Your task to perform on an android device: find photos in the google photos app Image 0: 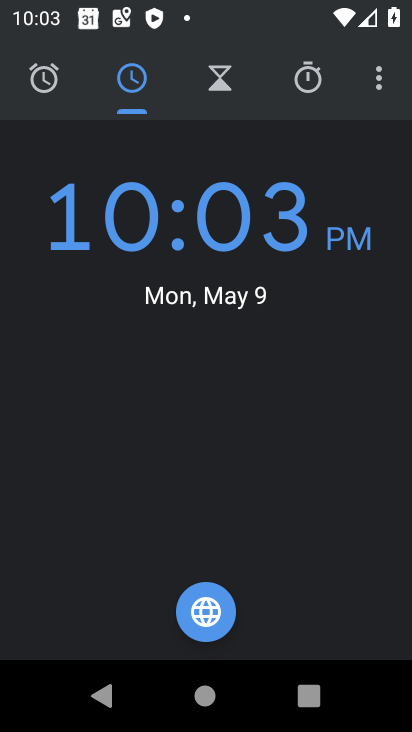
Step 0: press back button
Your task to perform on an android device: find photos in the google photos app Image 1: 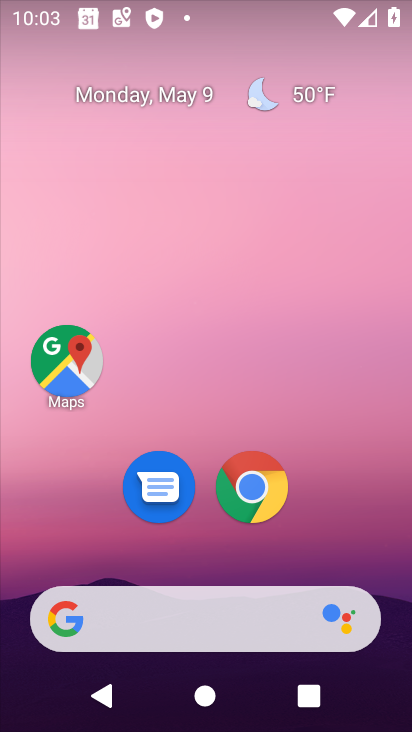
Step 1: drag from (18, 672) to (222, 222)
Your task to perform on an android device: find photos in the google photos app Image 2: 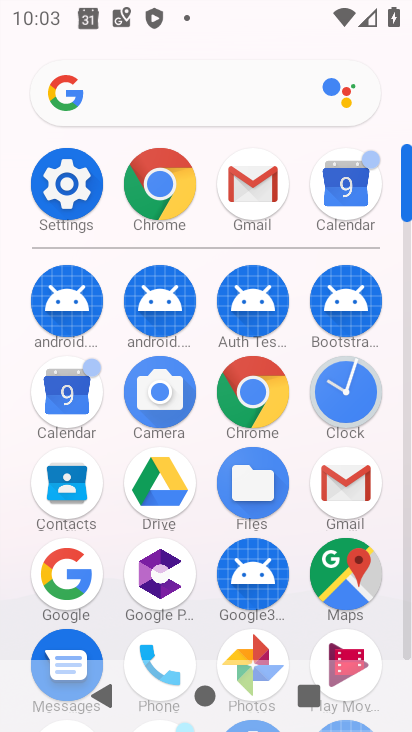
Step 2: click (248, 645)
Your task to perform on an android device: find photos in the google photos app Image 3: 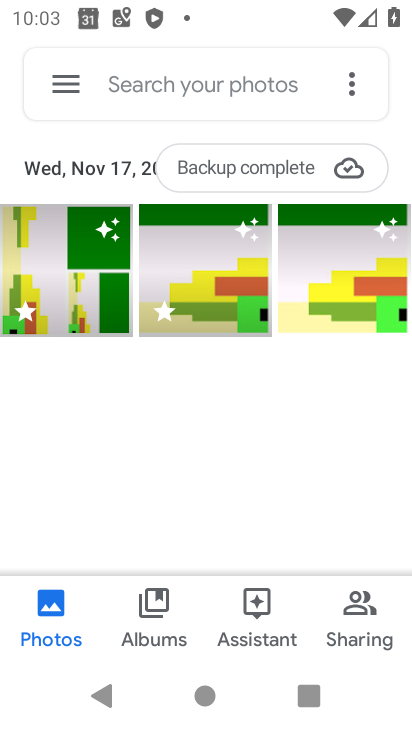
Step 3: click (49, 608)
Your task to perform on an android device: find photos in the google photos app Image 4: 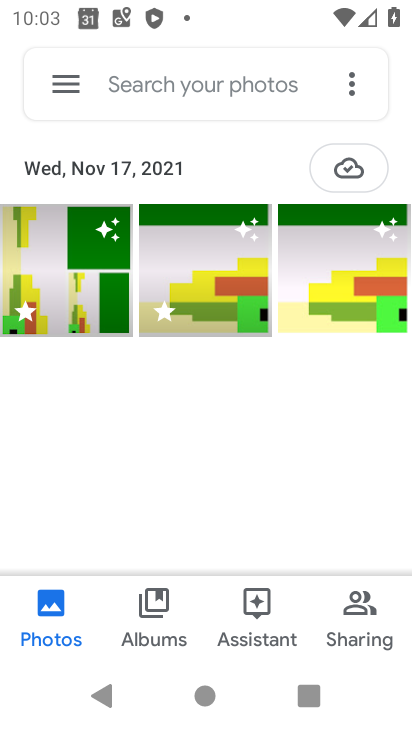
Step 4: task complete